Your task to perform on an android device: Open the web browser Image 0: 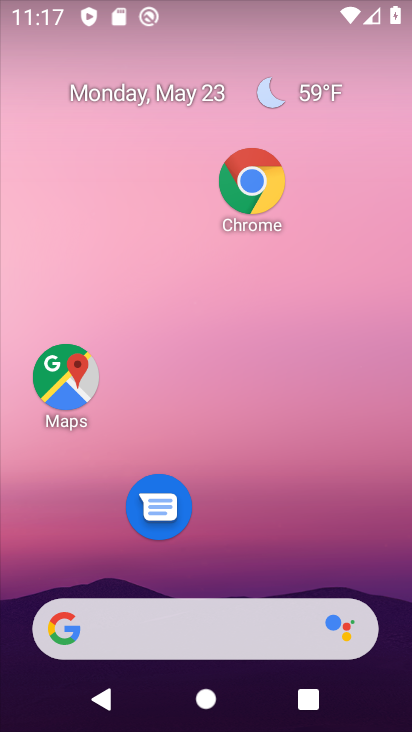
Step 0: click (254, 168)
Your task to perform on an android device: Open the web browser Image 1: 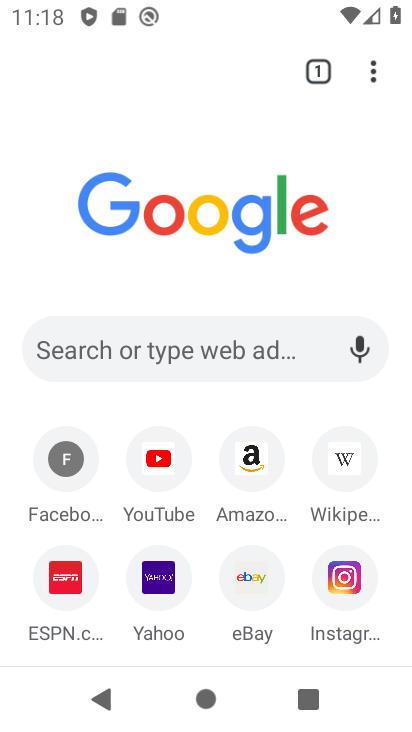
Step 1: task complete